Your task to perform on an android device: allow cookies in the chrome app Image 0: 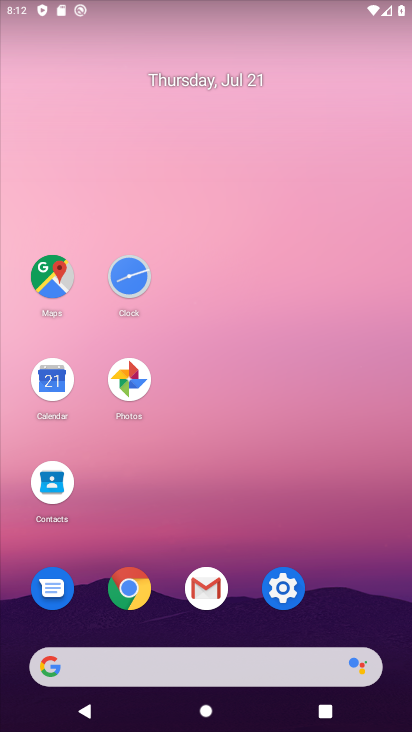
Step 0: click (121, 600)
Your task to perform on an android device: allow cookies in the chrome app Image 1: 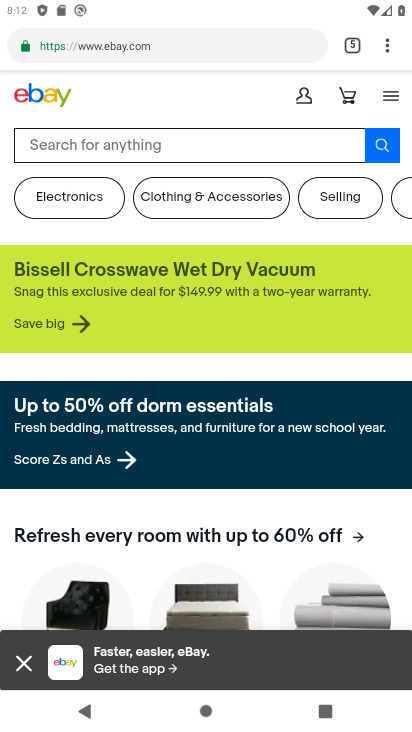
Step 1: click (388, 47)
Your task to perform on an android device: allow cookies in the chrome app Image 2: 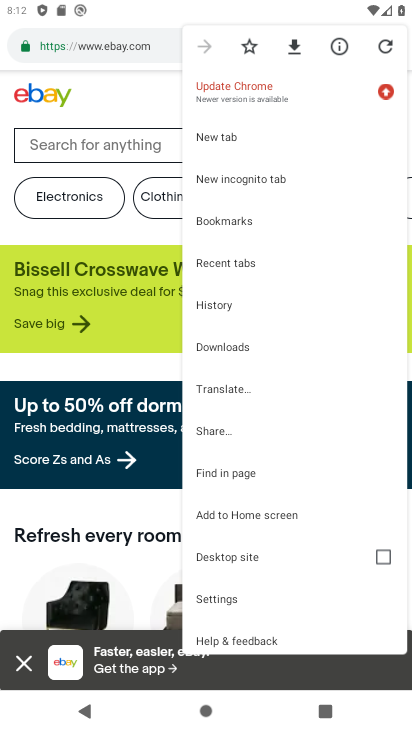
Step 2: click (218, 601)
Your task to perform on an android device: allow cookies in the chrome app Image 3: 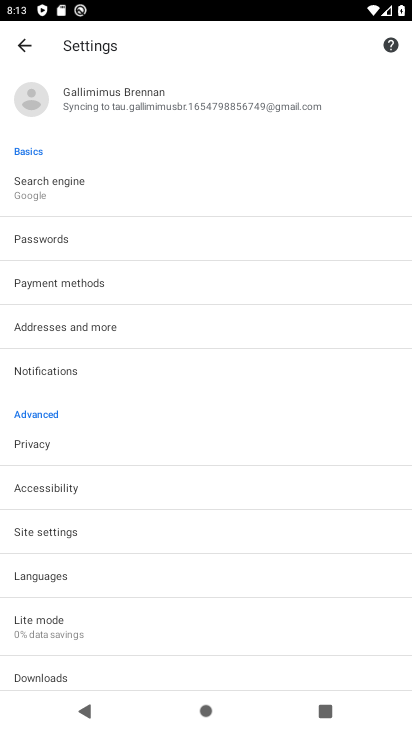
Step 3: click (38, 526)
Your task to perform on an android device: allow cookies in the chrome app Image 4: 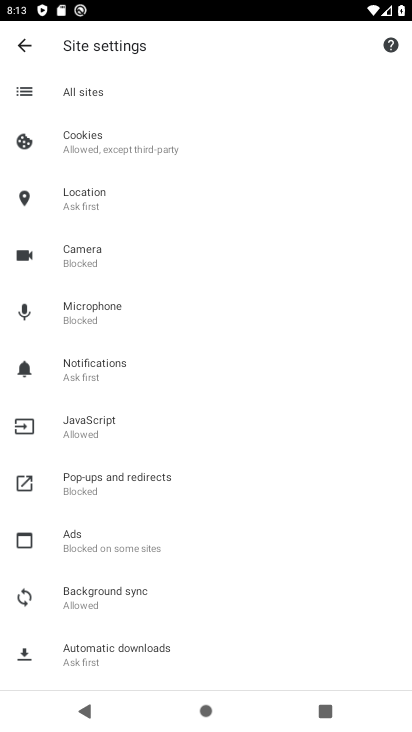
Step 4: click (80, 131)
Your task to perform on an android device: allow cookies in the chrome app Image 5: 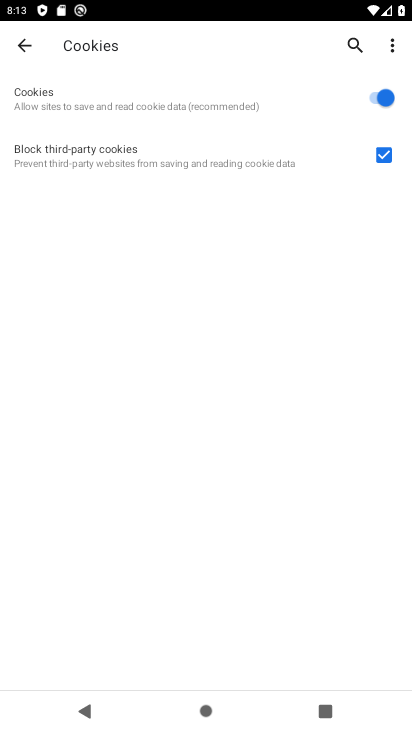
Step 5: task complete